Your task to perform on an android device: turn on location history Image 0: 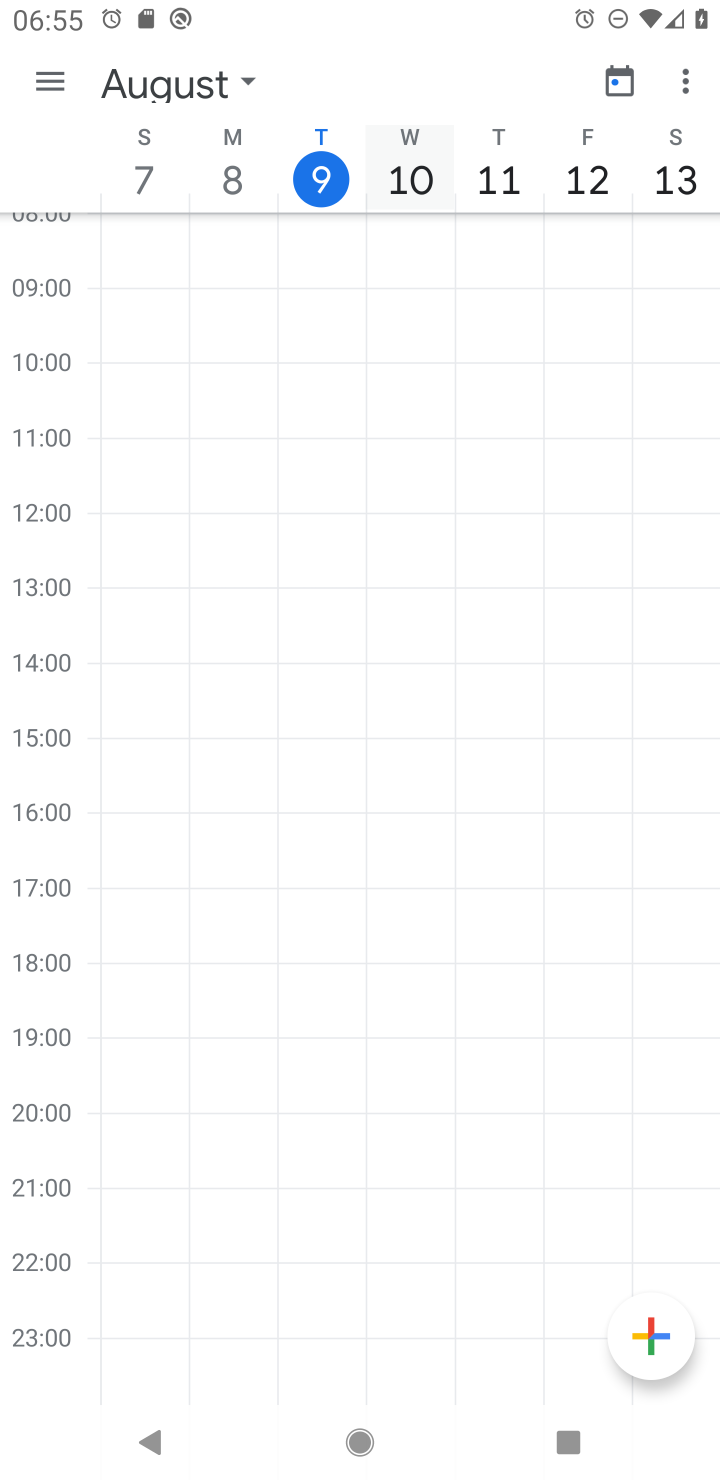
Step 0: press home button
Your task to perform on an android device: turn on location history Image 1: 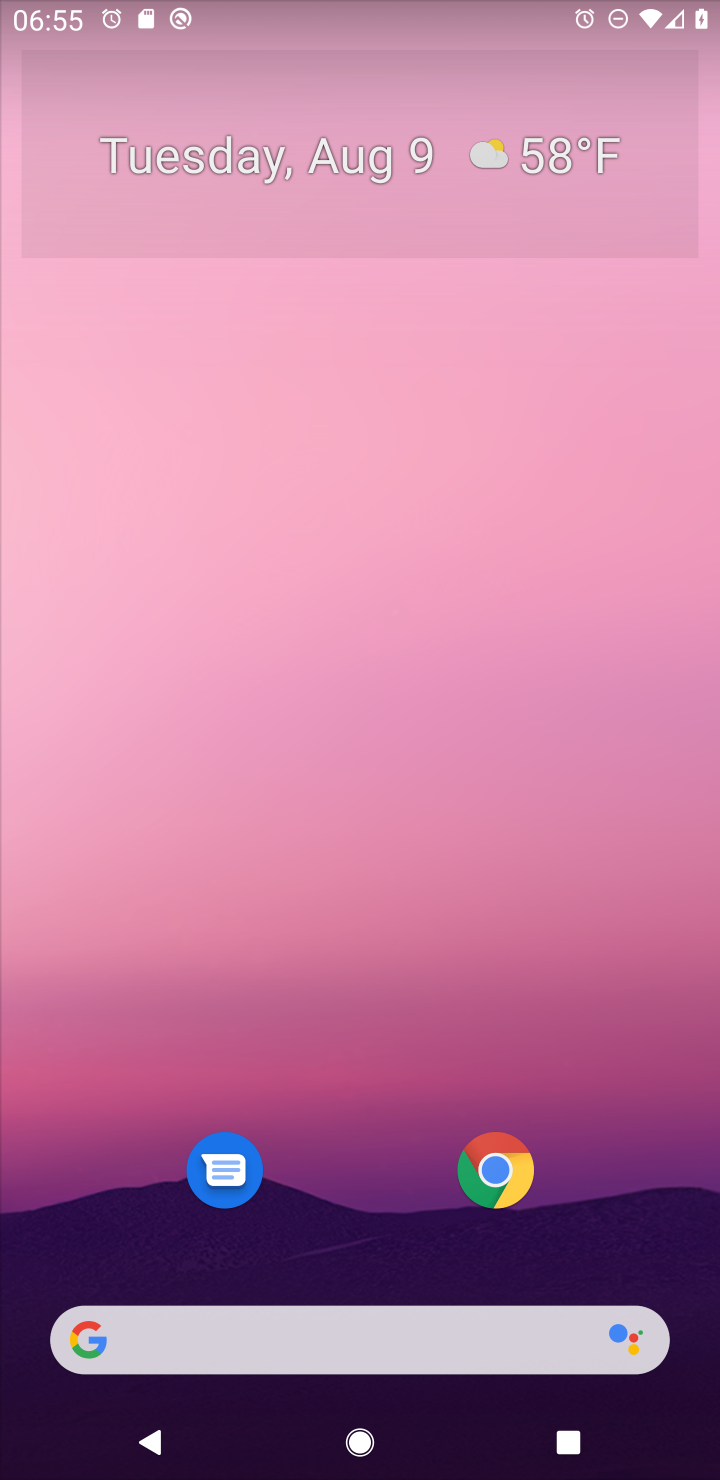
Step 1: drag from (358, 1262) to (437, 19)
Your task to perform on an android device: turn on location history Image 2: 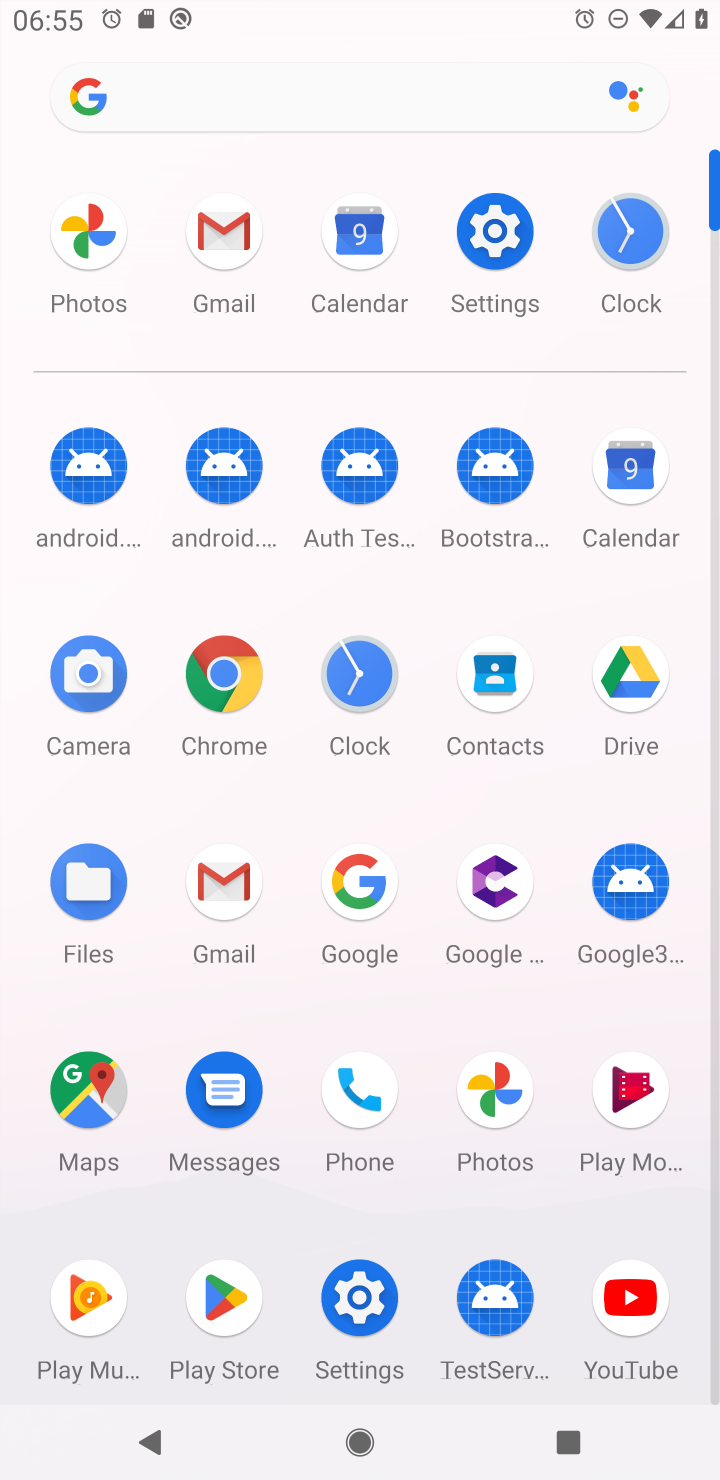
Step 2: click (496, 240)
Your task to perform on an android device: turn on location history Image 3: 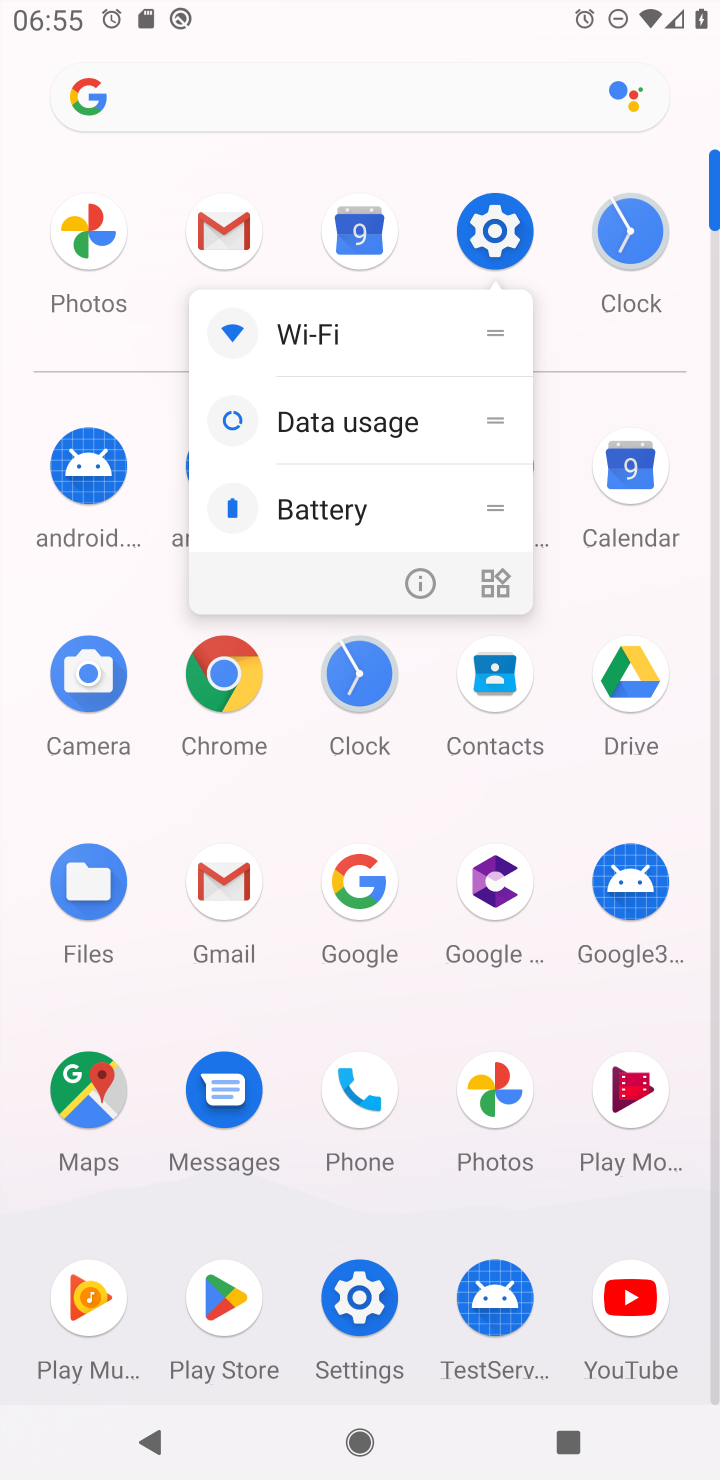
Step 3: click (496, 240)
Your task to perform on an android device: turn on location history Image 4: 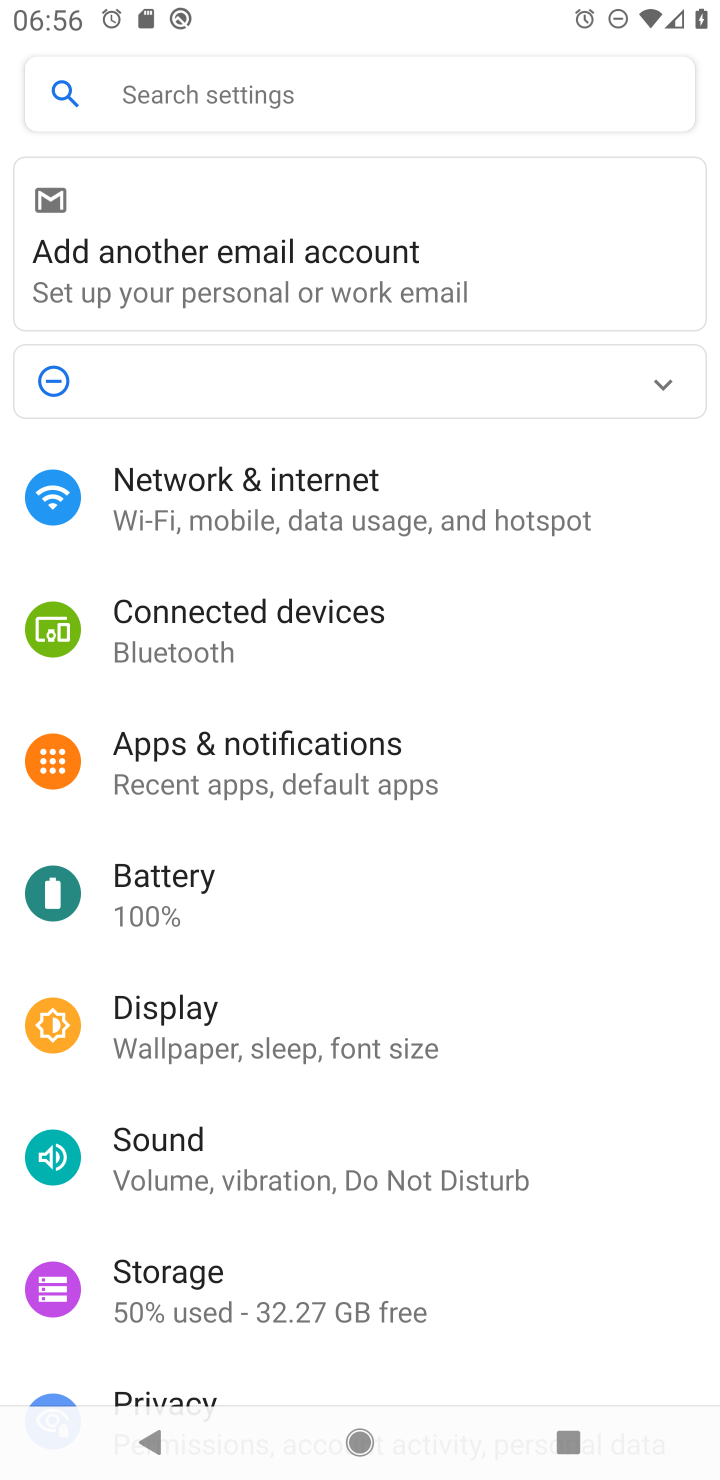
Step 4: drag from (541, 1278) to (537, 660)
Your task to perform on an android device: turn on location history Image 5: 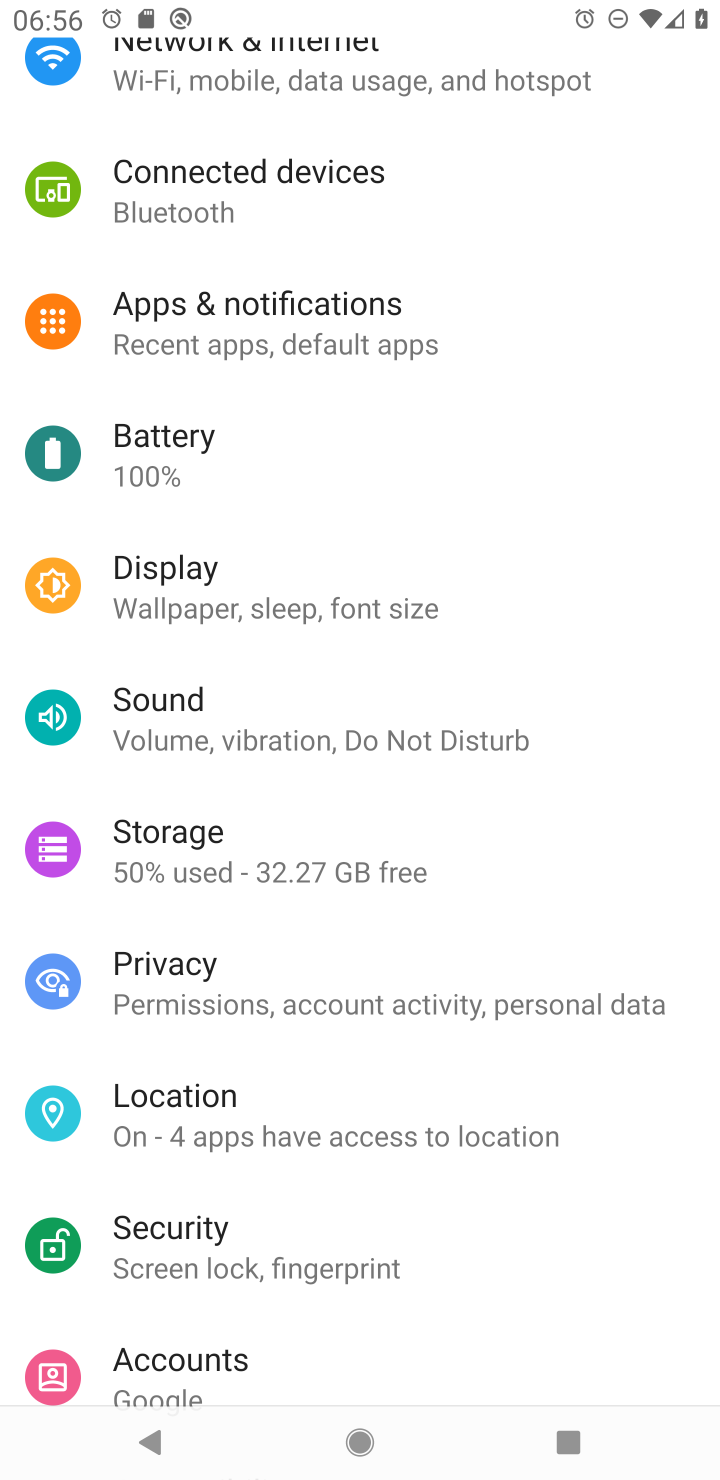
Step 5: click (219, 1114)
Your task to perform on an android device: turn on location history Image 6: 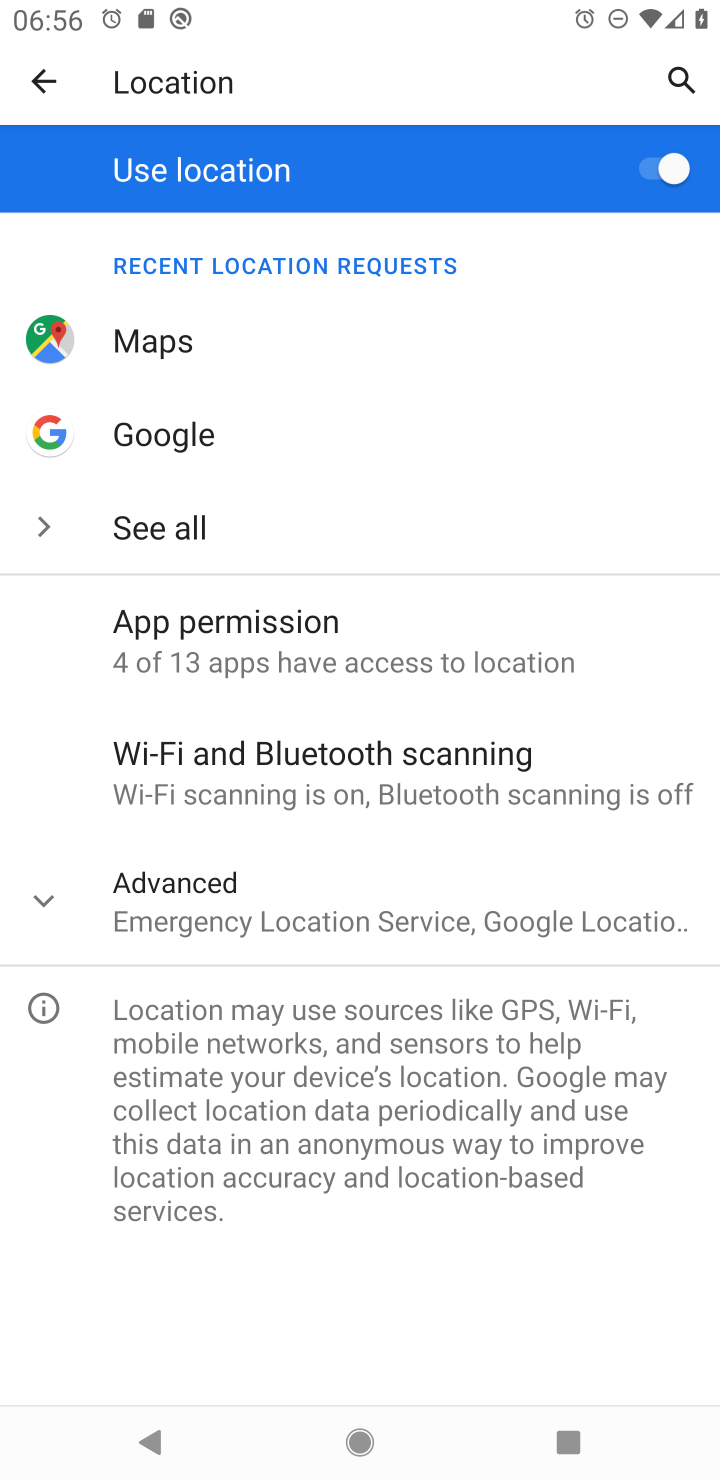
Step 6: click (184, 919)
Your task to perform on an android device: turn on location history Image 7: 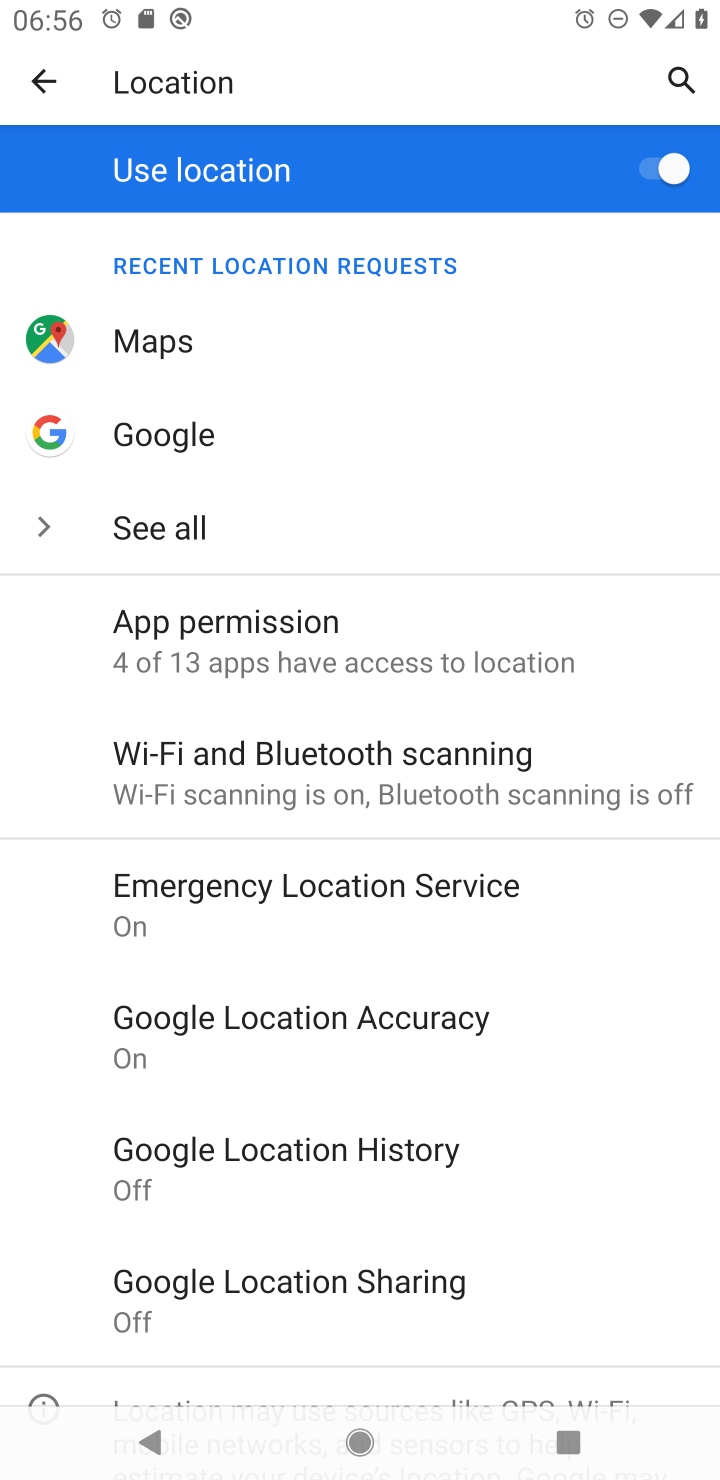
Step 7: click (334, 1163)
Your task to perform on an android device: turn on location history Image 8: 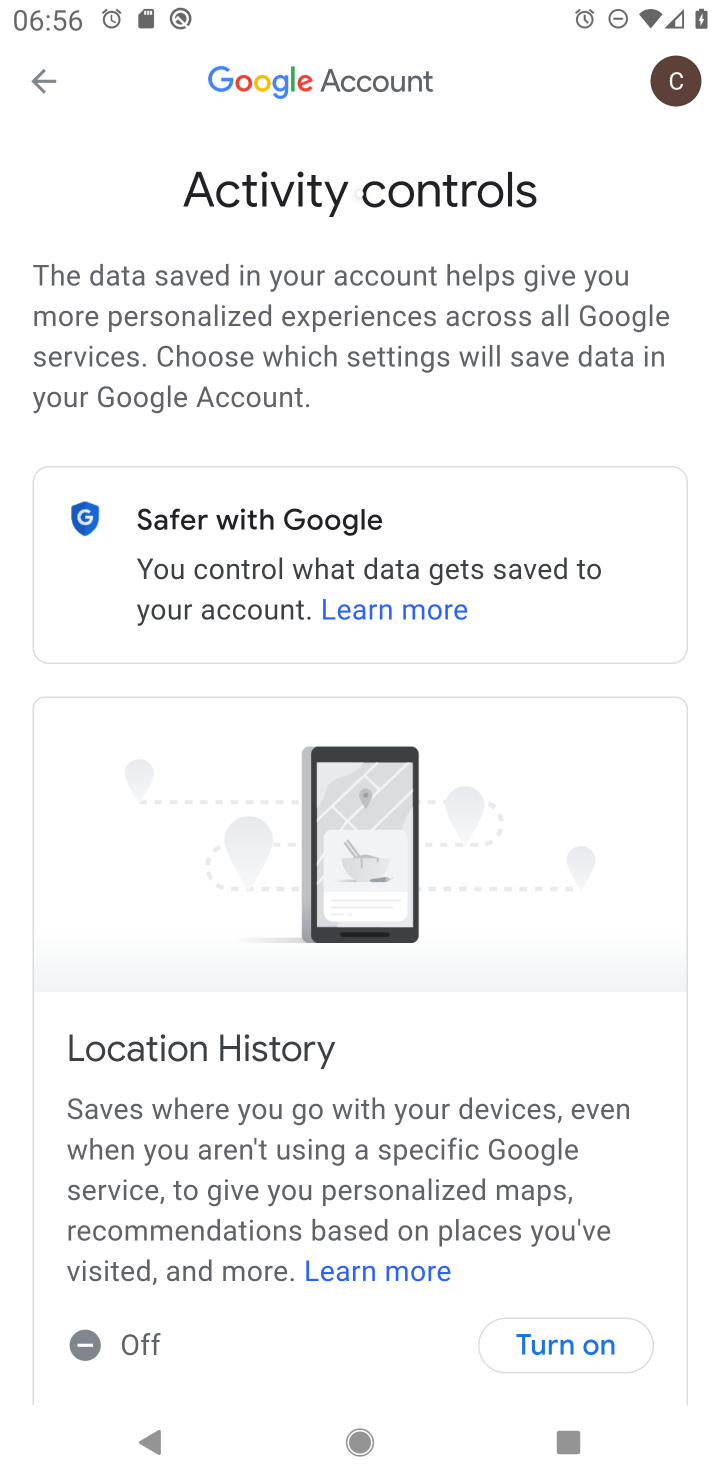
Step 8: click (562, 1348)
Your task to perform on an android device: turn on location history Image 9: 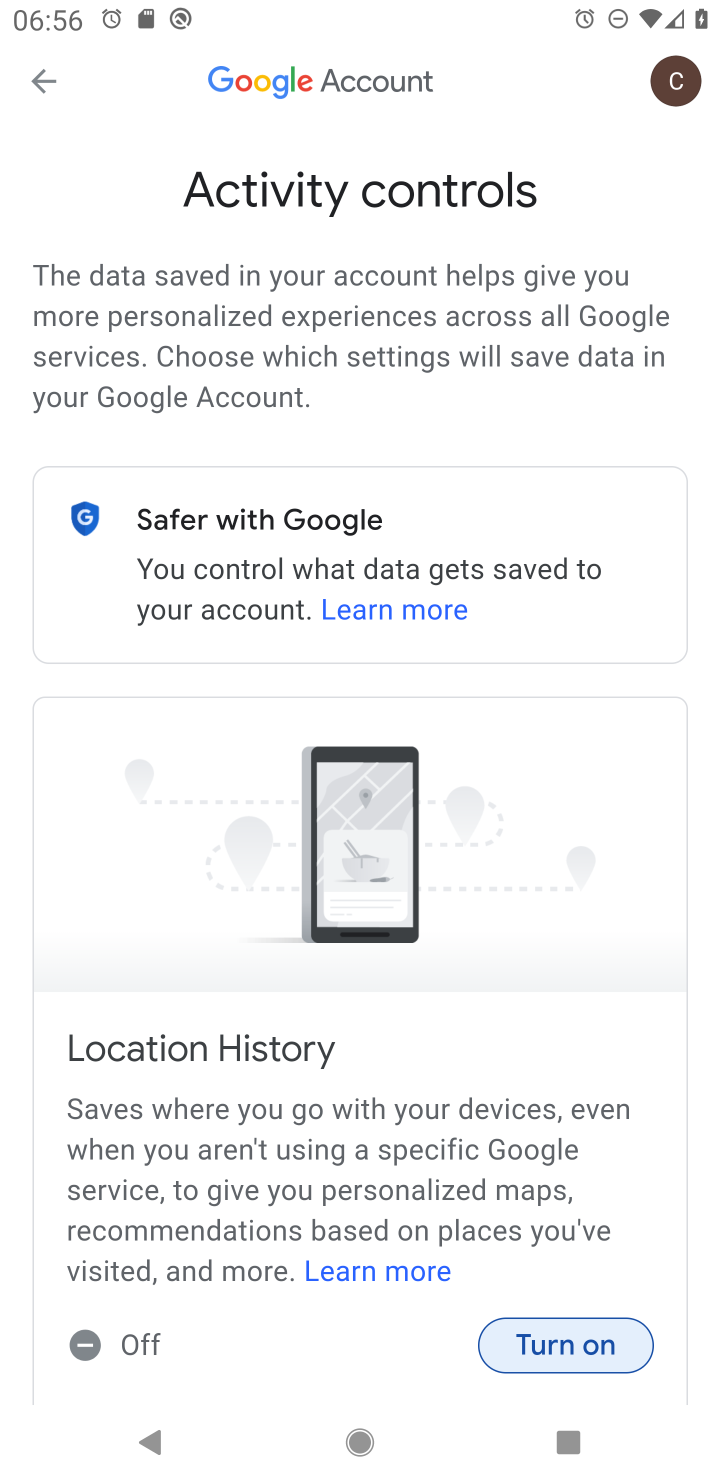
Step 9: drag from (627, 1268) to (687, 91)
Your task to perform on an android device: turn on location history Image 10: 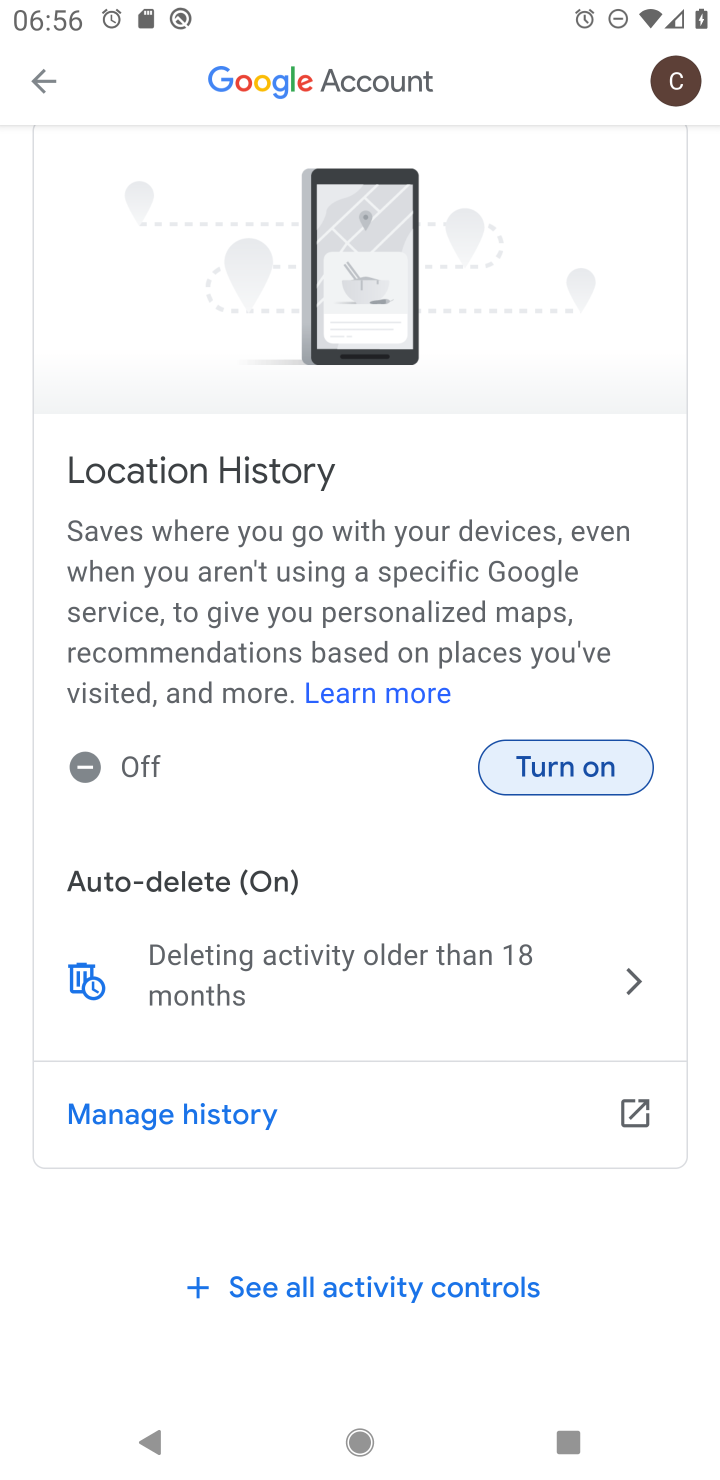
Step 10: click (579, 773)
Your task to perform on an android device: turn on location history Image 11: 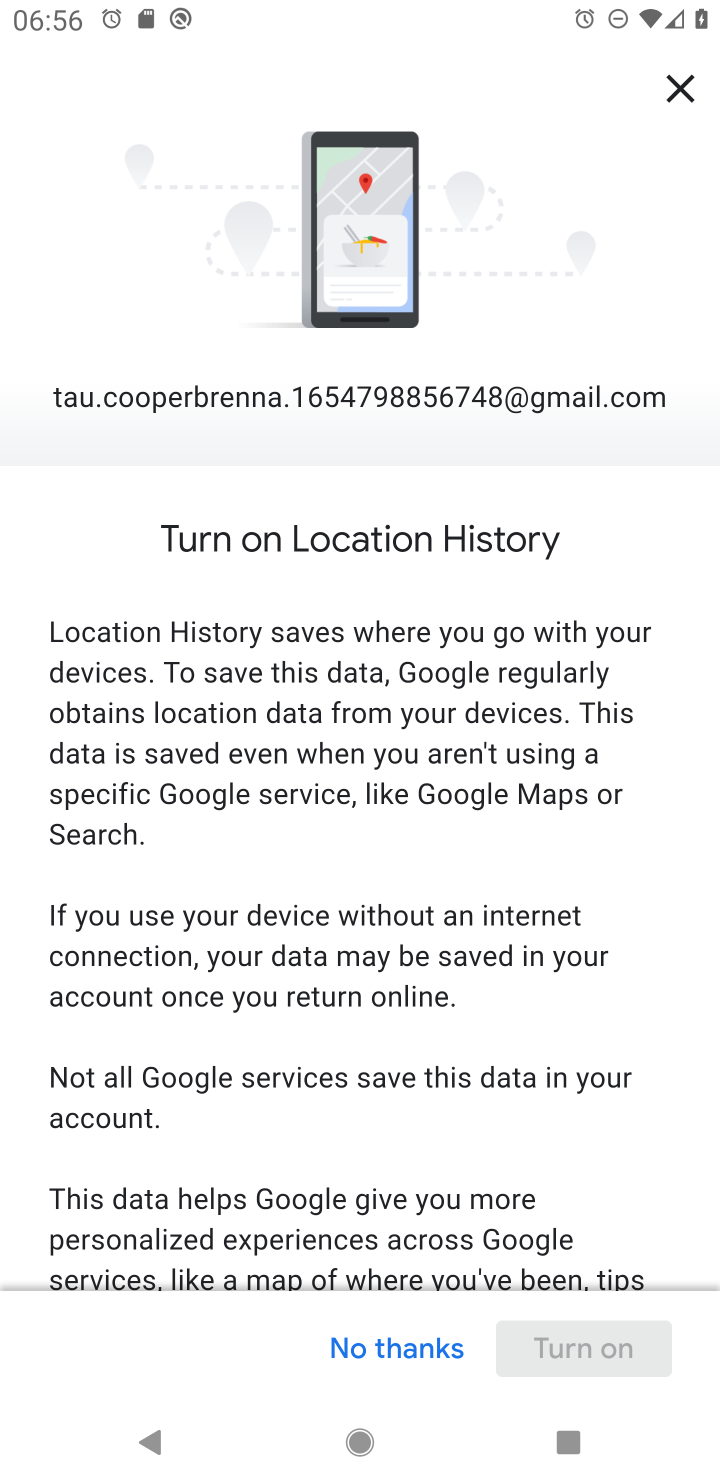
Step 11: drag from (643, 1111) to (531, 31)
Your task to perform on an android device: turn on location history Image 12: 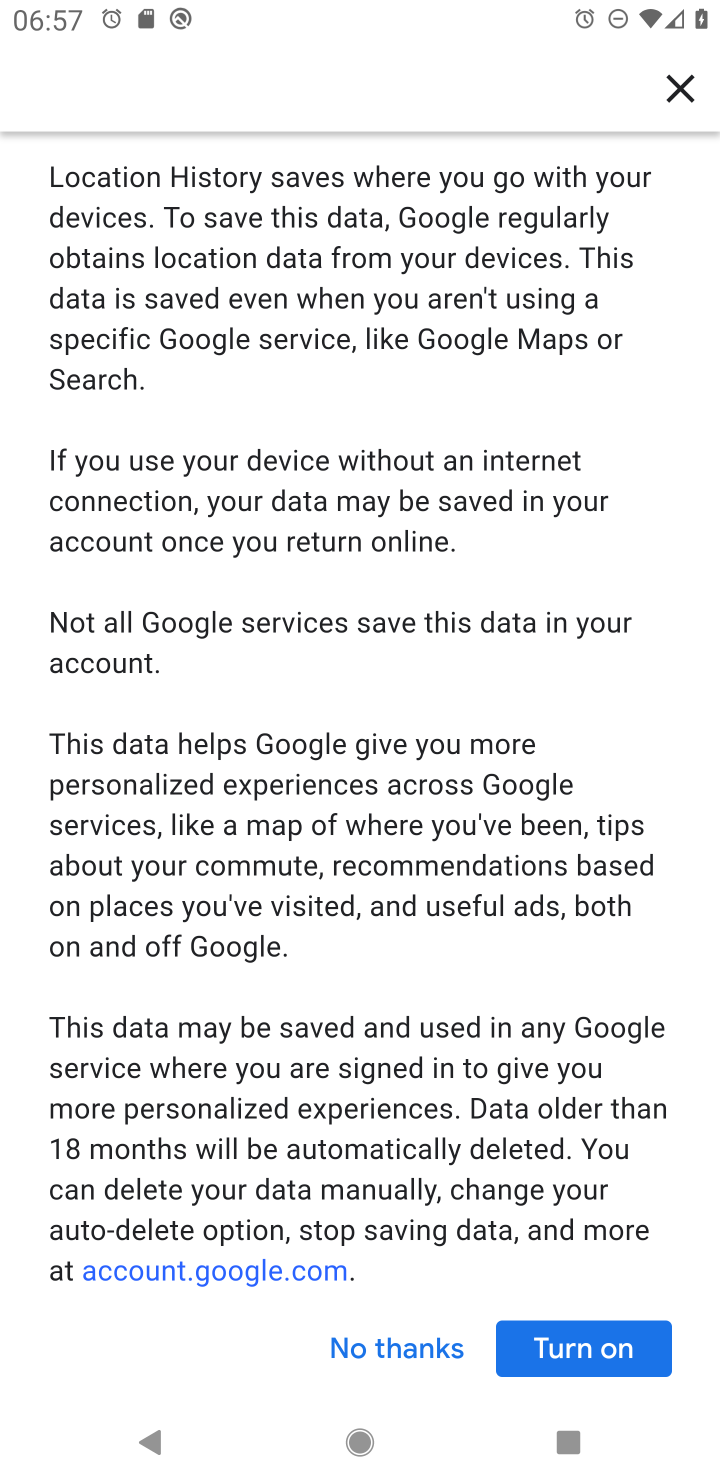
Step 12: click (579, 1352)
Your task to perform on an android device: turn on location history Image 13: 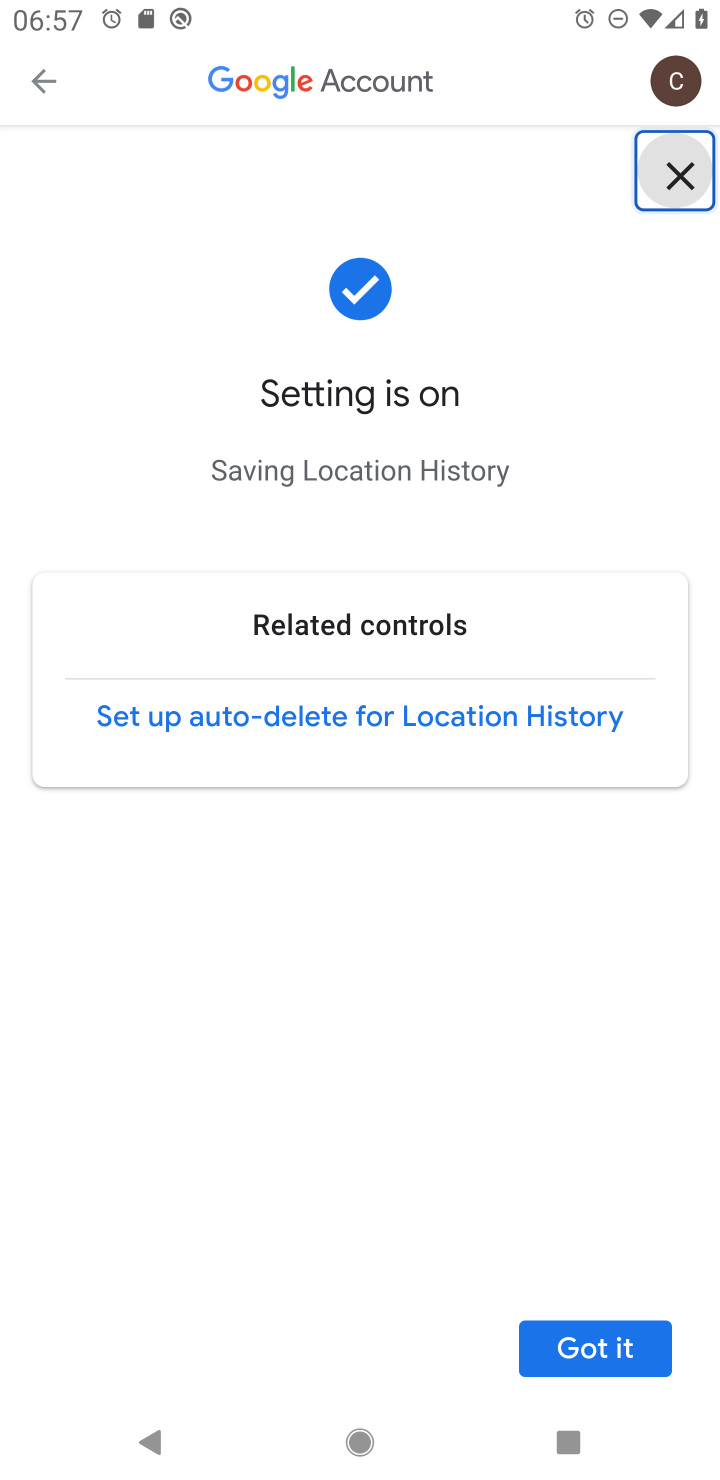
Step 13: click (576, 1347)
Your task to perform on an android device: turn on location history Image 14: 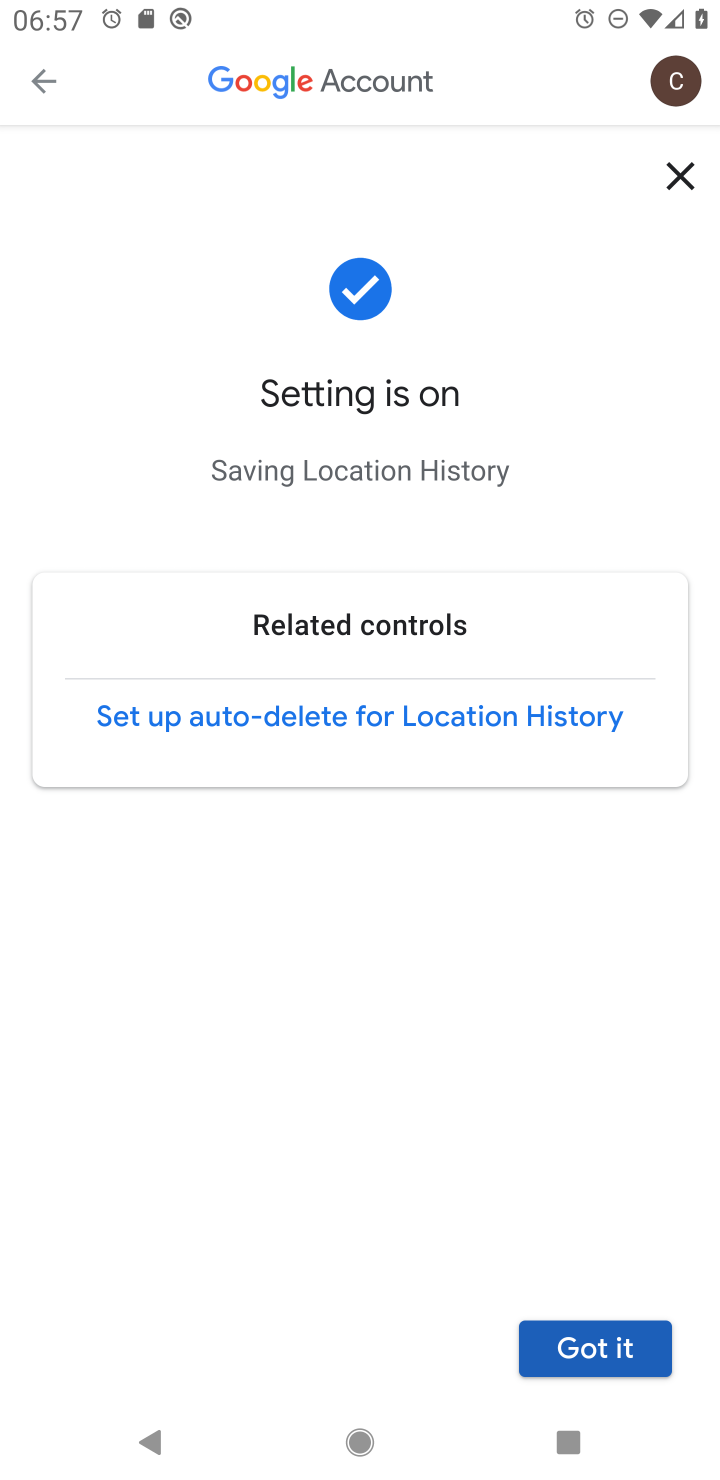
Step 14: task complete